Your task to perform on an android device: Open ESPN.com Image 0: 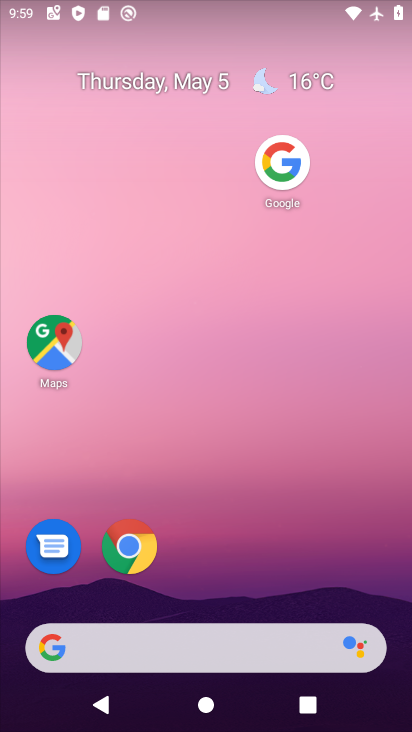
Step 0: drag from (145, 650) to (288, 184)
Your task to perform on an android device: Open ESPN.com Image 1: 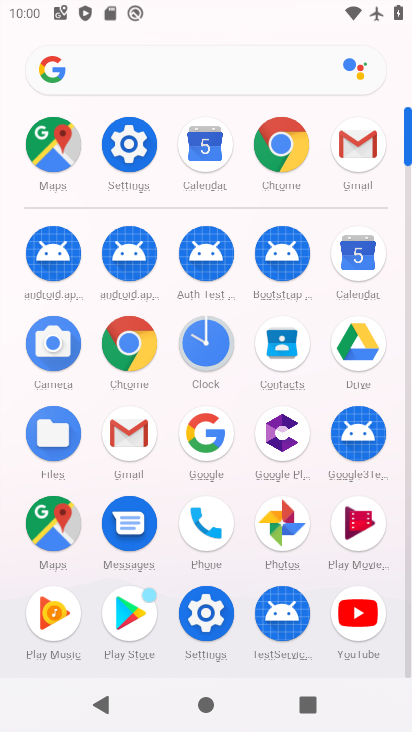
Step 1: click (285, 158)
Your task to perform on an android device: Open ESPN.com Image 2: 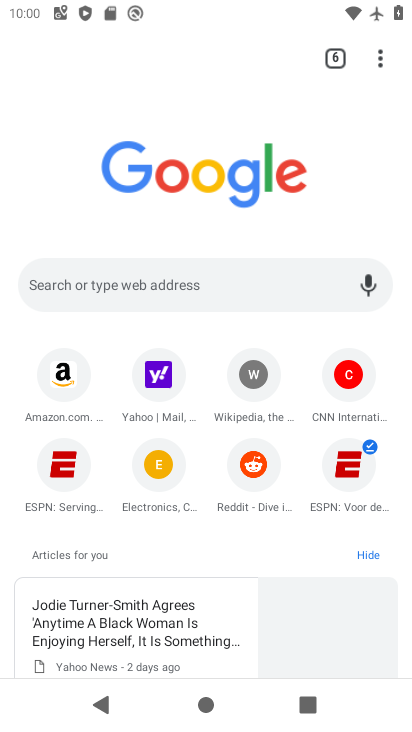
Step 2: click (357, 470)
Your task to perform on an android device: Open ESPN.com Image 3: 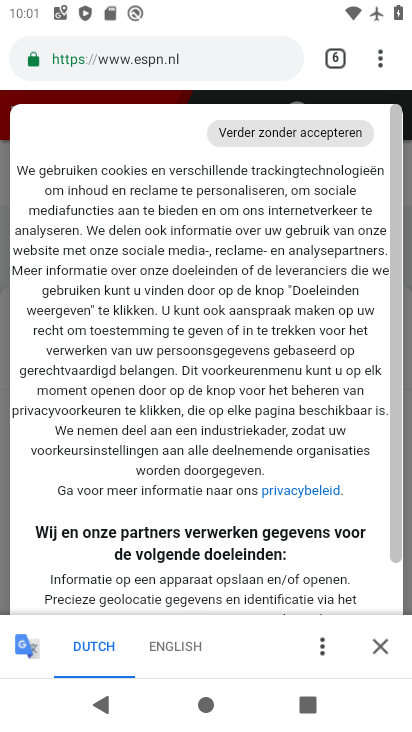
Step 3: task complete